Your task to perform on an android device: Show me popular videos on Youtube Image 0: 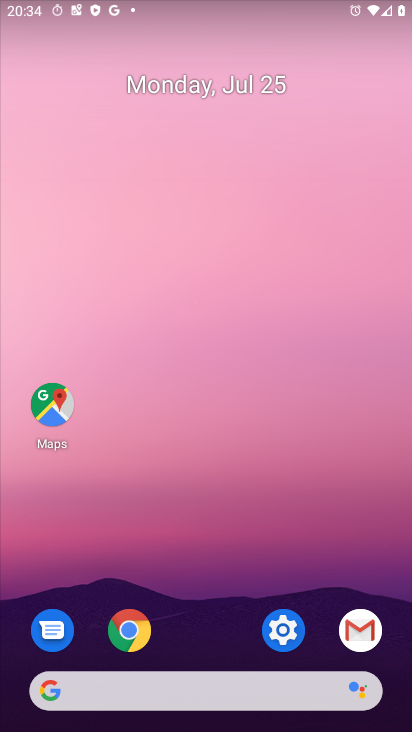
Step 0: drag from (252, 694) to (266, 23)
Your task to perform on an android device: Show me popular videos on Youtube Image 1: 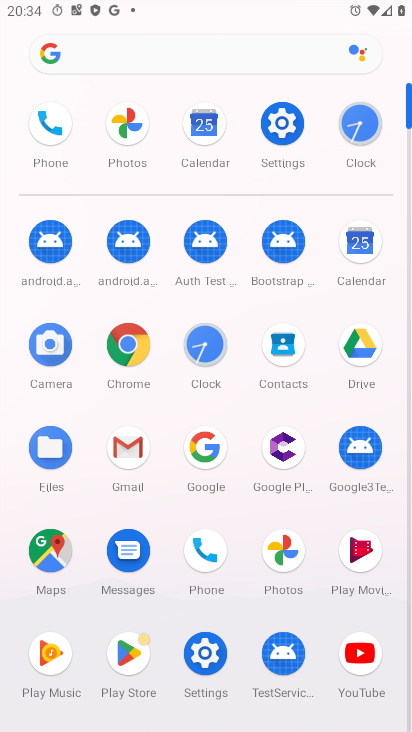
Step 1: click (366, 647)
Your task to perform on an android device: Show me popular videos on Youtube Image 2: 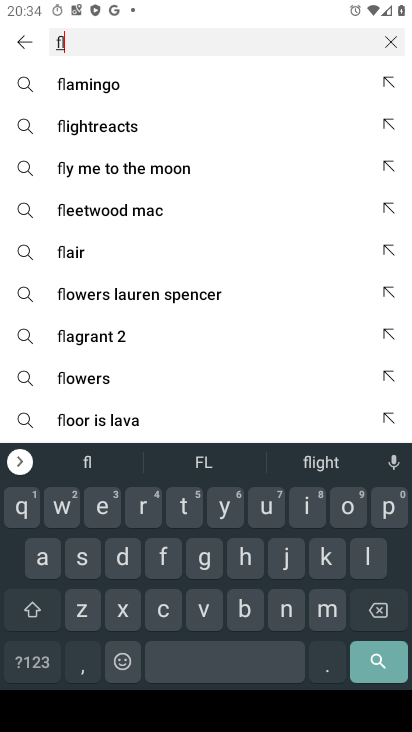
Step 2: click (389, 47)
Your task to perform on an android device: Show me popular videos on Youtube Image 3: 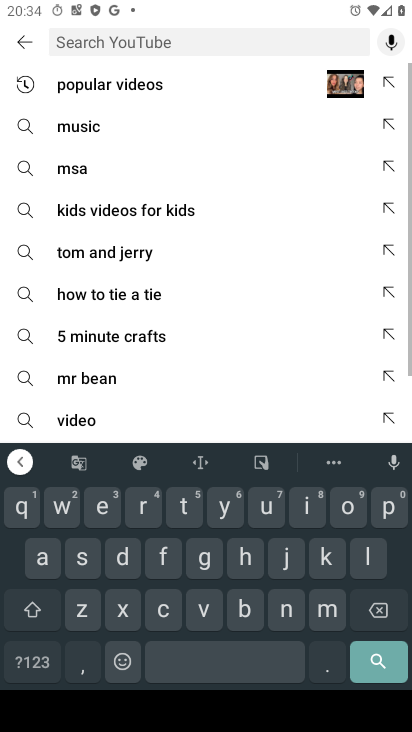
Step 3: click (153, 90)
Your task to perform on an android device: Show me popular videos on Youtube Image 4: 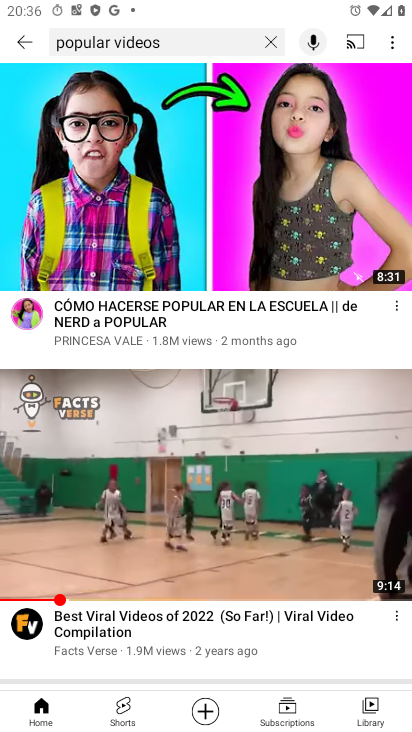
Step 4: task complete